Your task to perform on an android device: turn on wifi Image 0: 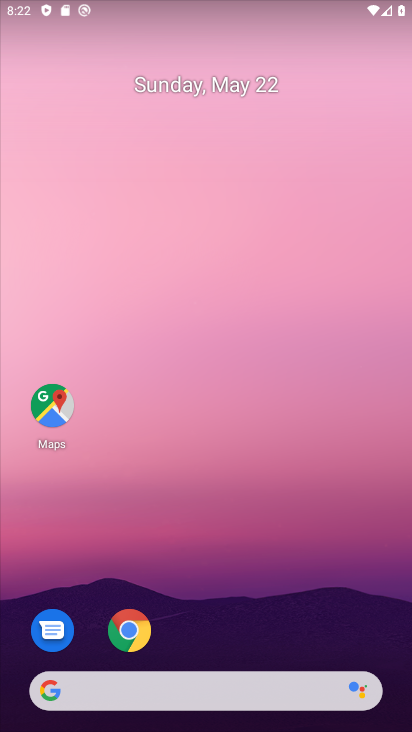
Step 0: press home button
Your task to perform on an android device: turn on wifi Image 1: 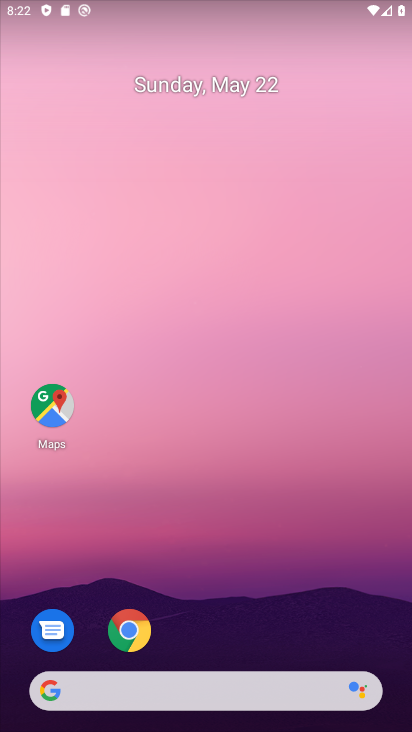
Step 1: drag from (196, 667) to (283, 93)
Your task to perform on an android device: turn on wifi Image 2: 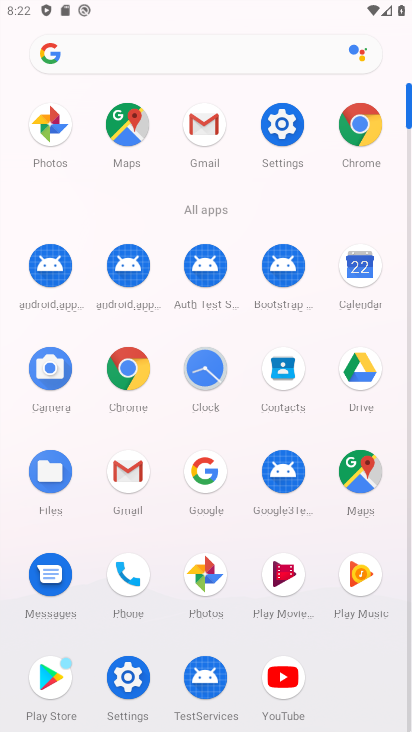
Step 2: click (289, 131)
Your task to perform on an android device: turn on wifi Image 3: 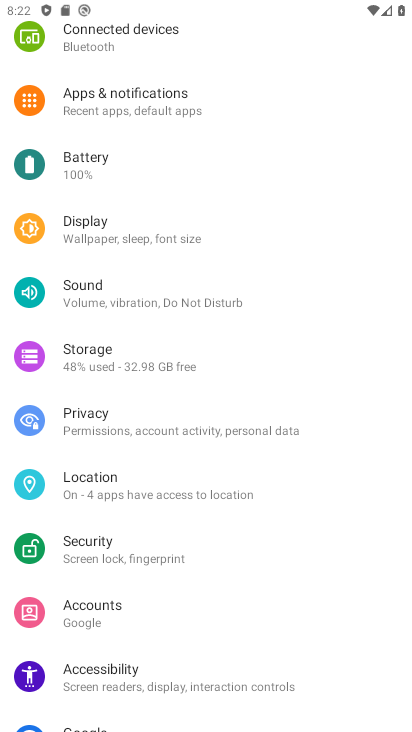
Step 3: drag from (343, 107) to (275, 603)
Your task to perform on an android device: turn on wifi Image 4: 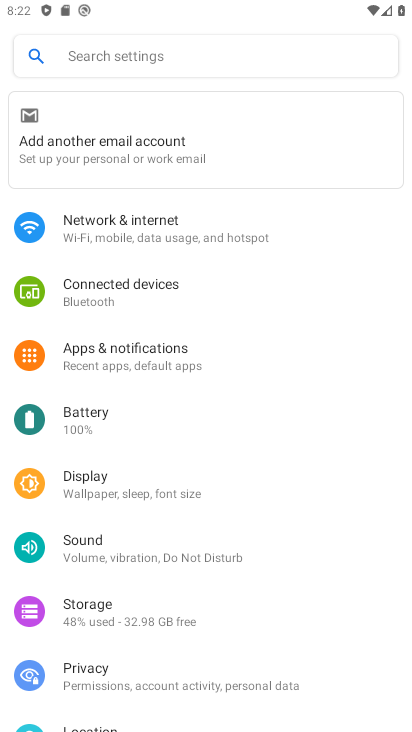
Step 4: click (159, 227)
Your task to perform on an android device: turn on wifi Image 5: 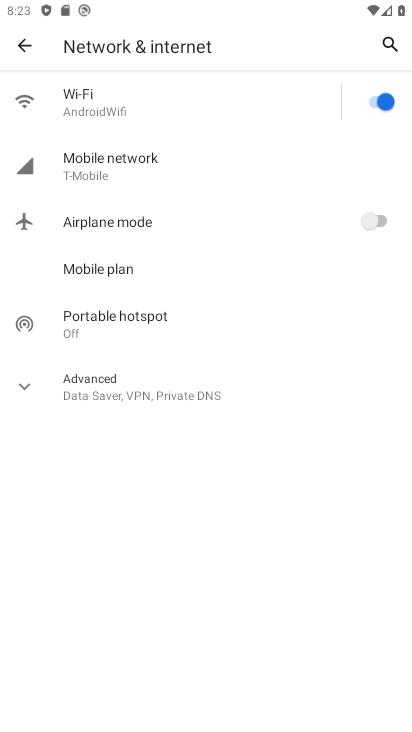
Step 5: task complete